Your task to perform on an android device: Show me popular games on the Play Store Image 0: 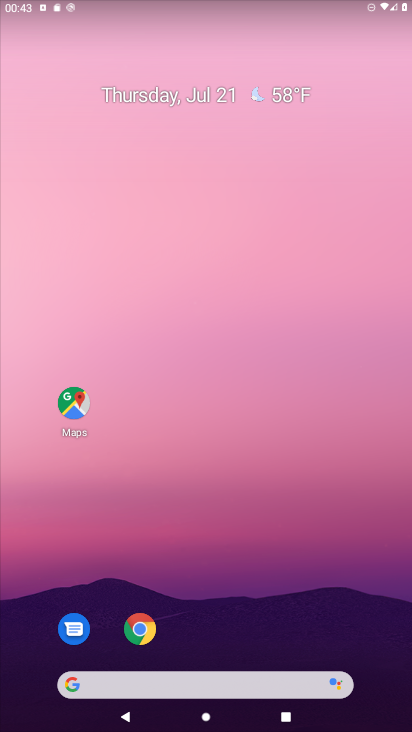
Step 0: drag from (217, 629) to (214, 216)
Your task to perform on an android device: Show me popular games on the Play Store Image 1: 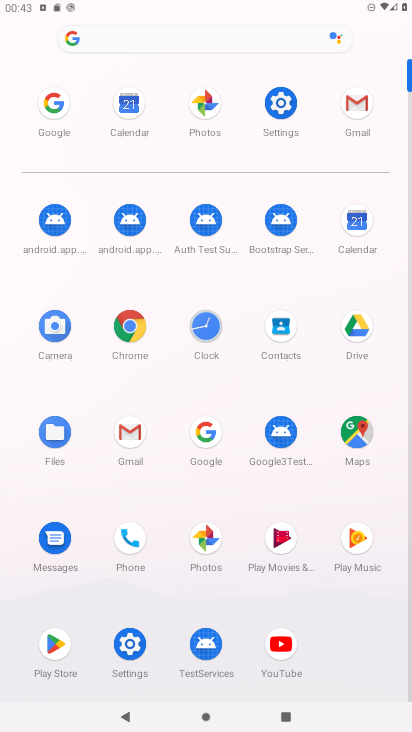
Step 1: click (58, 644)
Your task to perform on an android device: Show me popular games on the Play Store Image 2: 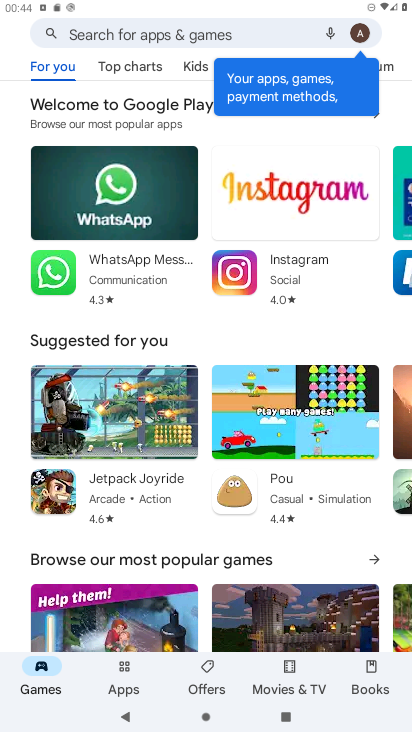
Step 2: click (126, 66)
Your task to perform on an android device: Show me popular games on the Play Store Image 3: 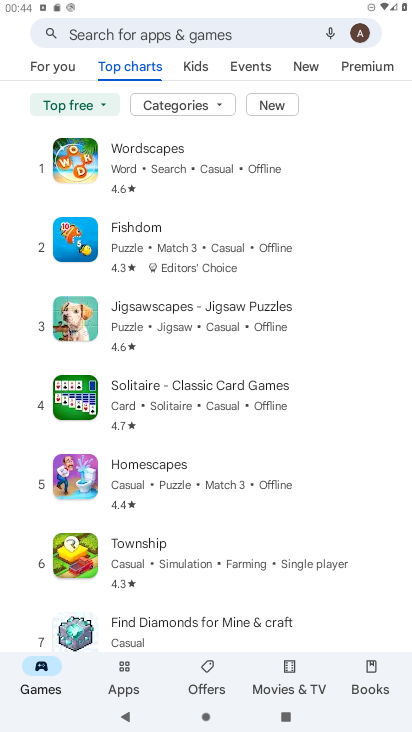
Step 3: task complete